Your task to perform on an android device: Open the stopwatch Image 0: 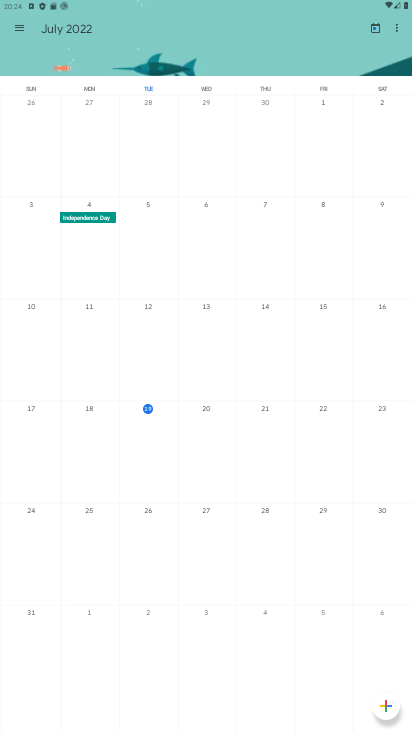
Step 0: press home button
Your task to perform on an android device: Open the stopwatch Image 1: 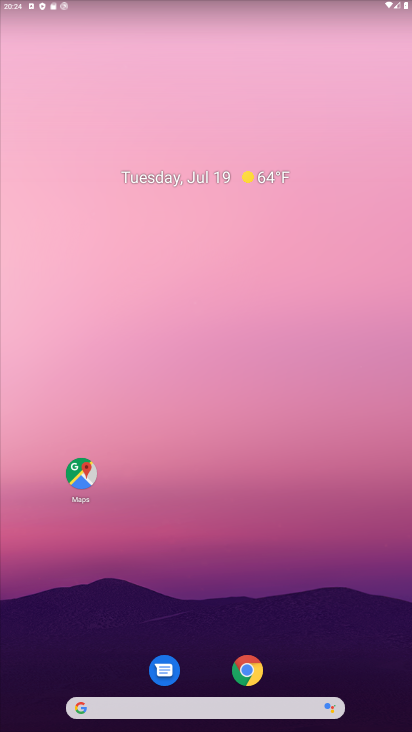
Step 1: drag from (201, 723) to (327, 135)
Your task to perform on an android device: Open the stopwatch Image 2: 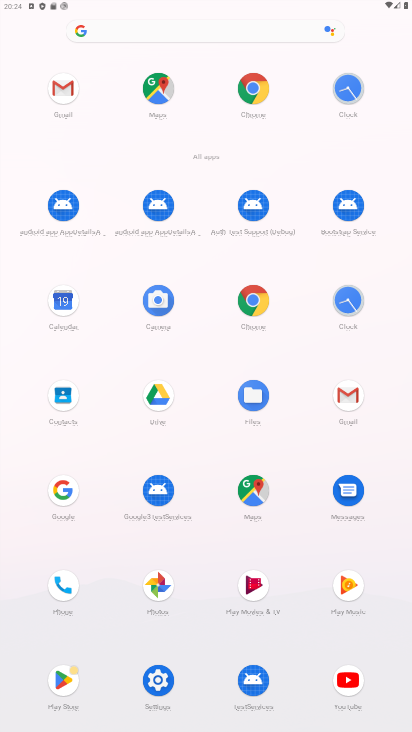
Step 2: click (344, 304)
Your task to perform on an android device: Open the stopwatch Image 3: 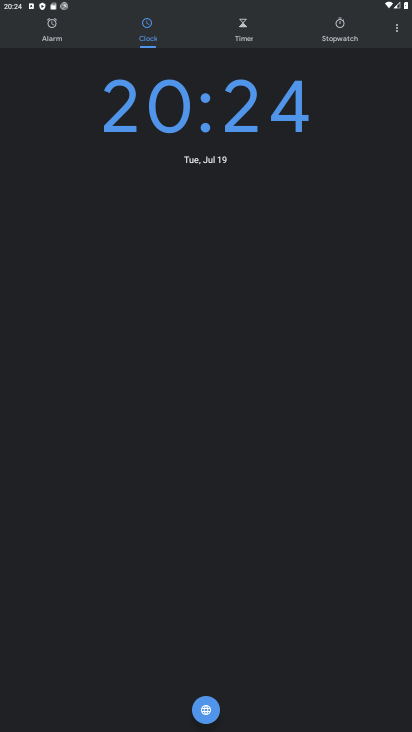
Step 3: click (331, 27)
Your task to perform on an android device: Open the stopwatch Image 4: 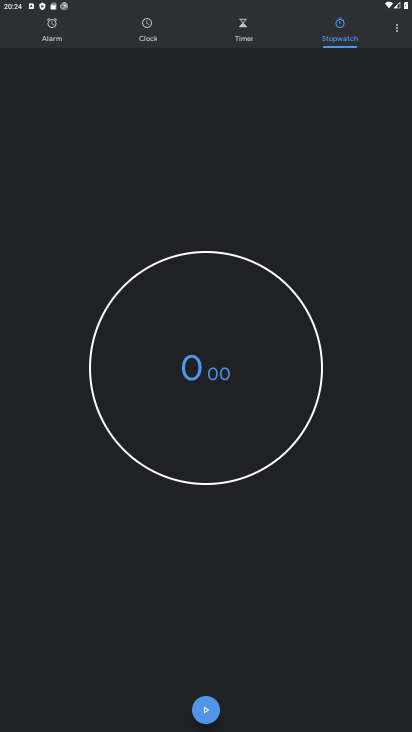
Step 4: task complete